Your task to perform on an android device: change notification settings in the gmail app Image 0: 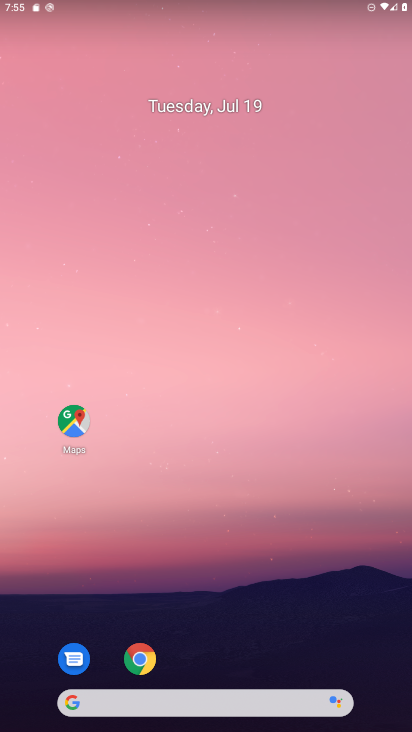
Step 0: drag from (248, 628) to (248, 73)
Your task to perform on an android device: change notification settings in the gmail app Image 1: 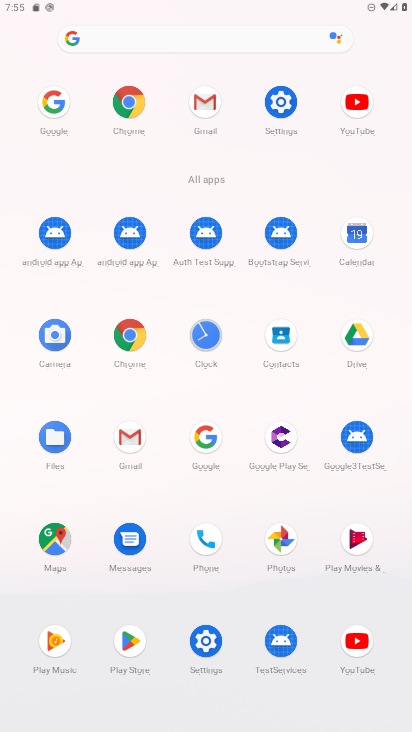
Step 1: click (208, 99)
Your task to perform on an android device: change notification settings in the gmail app Image 2: 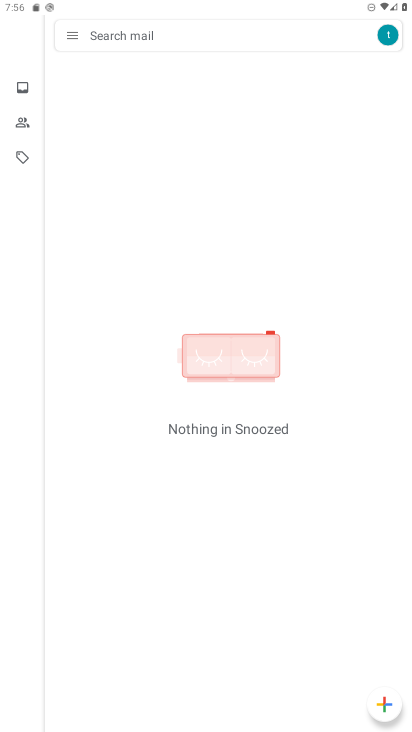
Step 2: click (71, 30)
Your task to perform on an android device: change notification settings in the gmail app Image 3: 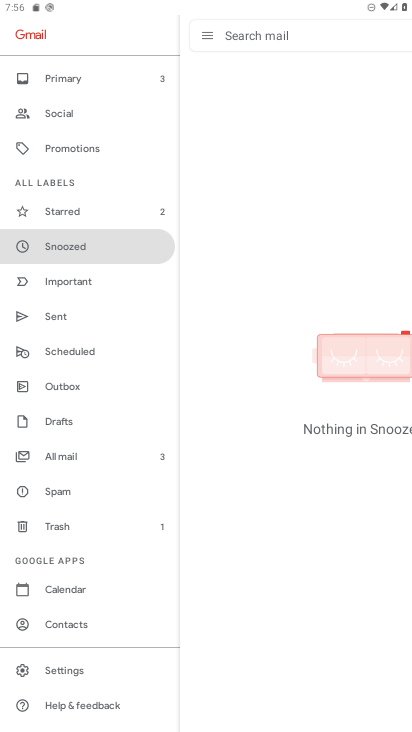
Step 3: click (75, 669)
Your task to perform on an android device: change notification settings in the gmail app Image 4: 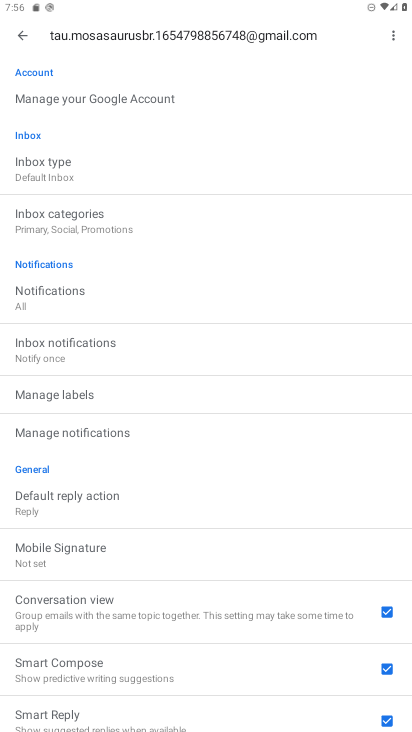
Step 4: click (74, 174)
Your task to perform on an android device: change notification settings in the gmail app Image 5: 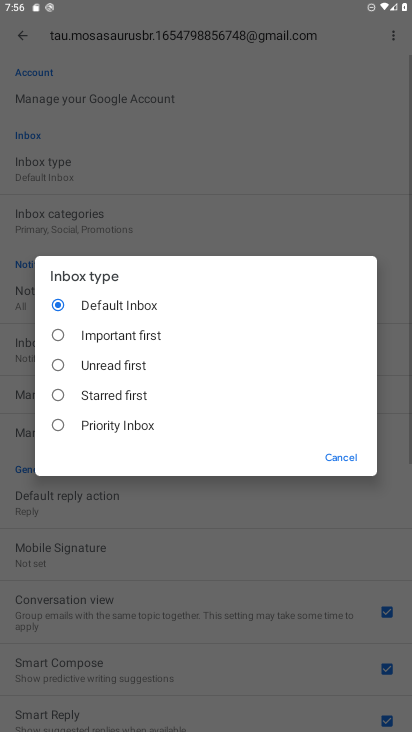
Step 5: click (119, 215)
Your task to perform on an android device: change notification settings in the gmail app Image 6: 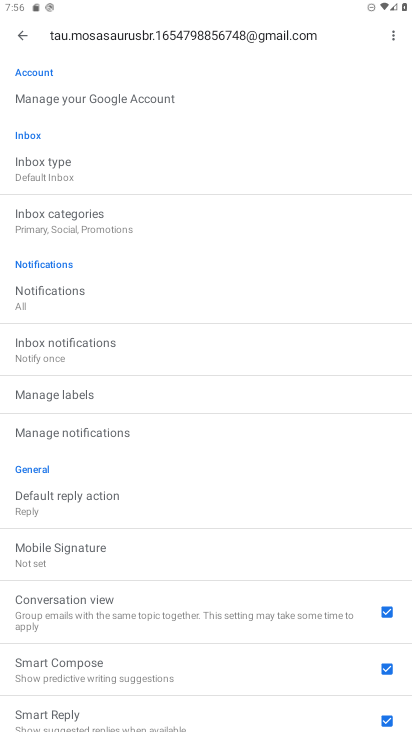
Step 6: click (77, 296)
Your task to perform on an android device: change notification settings in the gmail app Image 7: 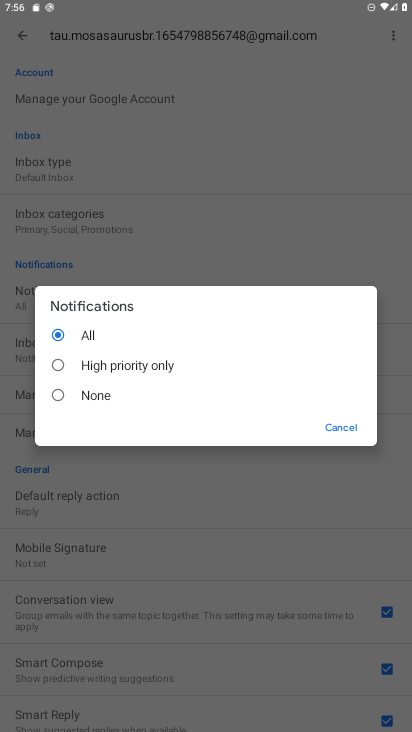
Step 7: click (85, 399)
Your task to perform on an android device: change notification settings in the gmail app Image 8: 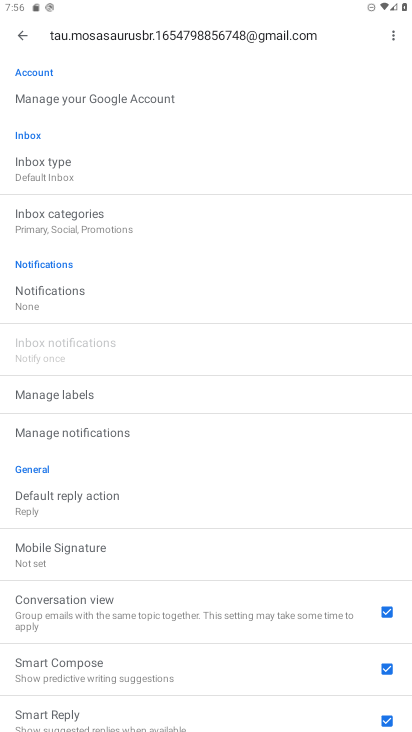
Step 8: task complete